Your task to perform on an android device: Clear the shopping cart on target.com. Add logitech g pro to the cart on target.com, then select checkout. Image 0: 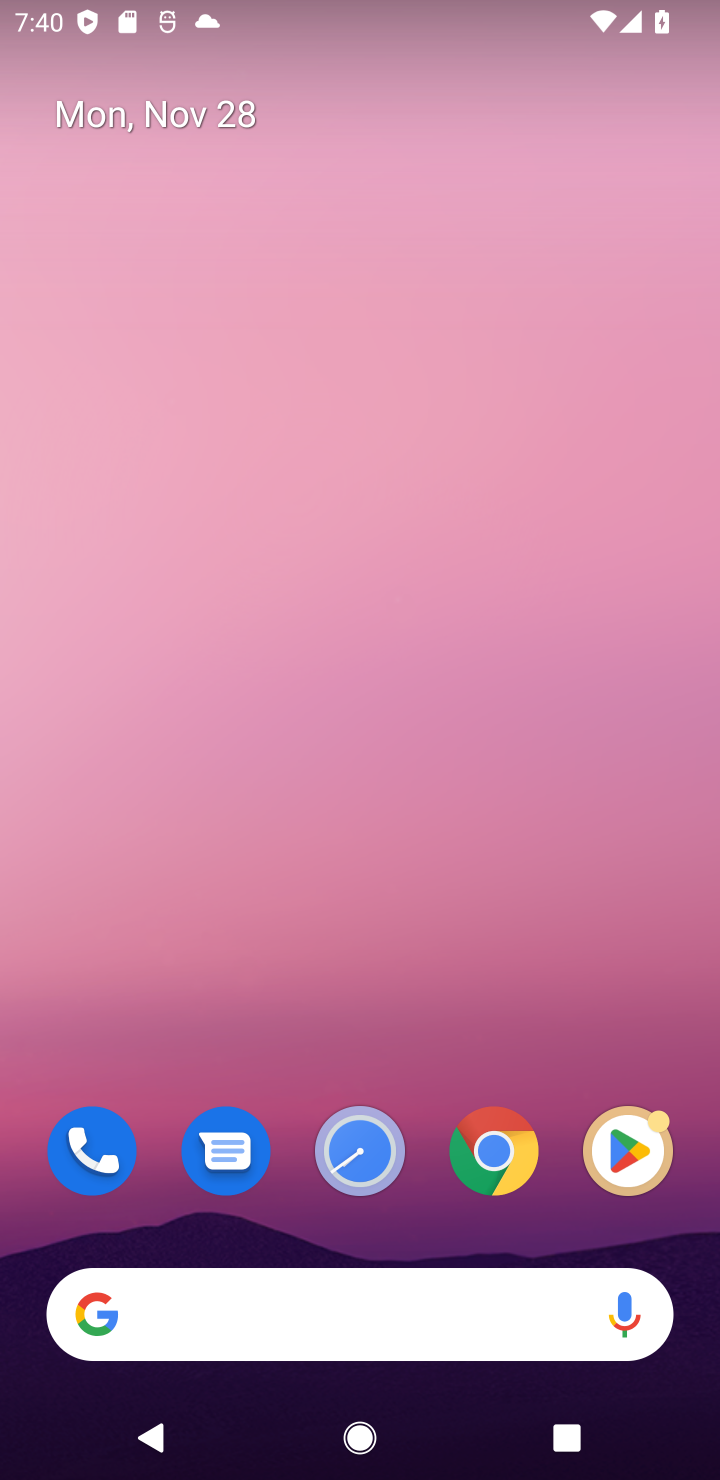
Step 0: click (477, 1284)
Your task to perform on an android device: Clear the shopping cart on target.com. Add logitech g pro to the cart on target.com, then select checkout. Image 1: 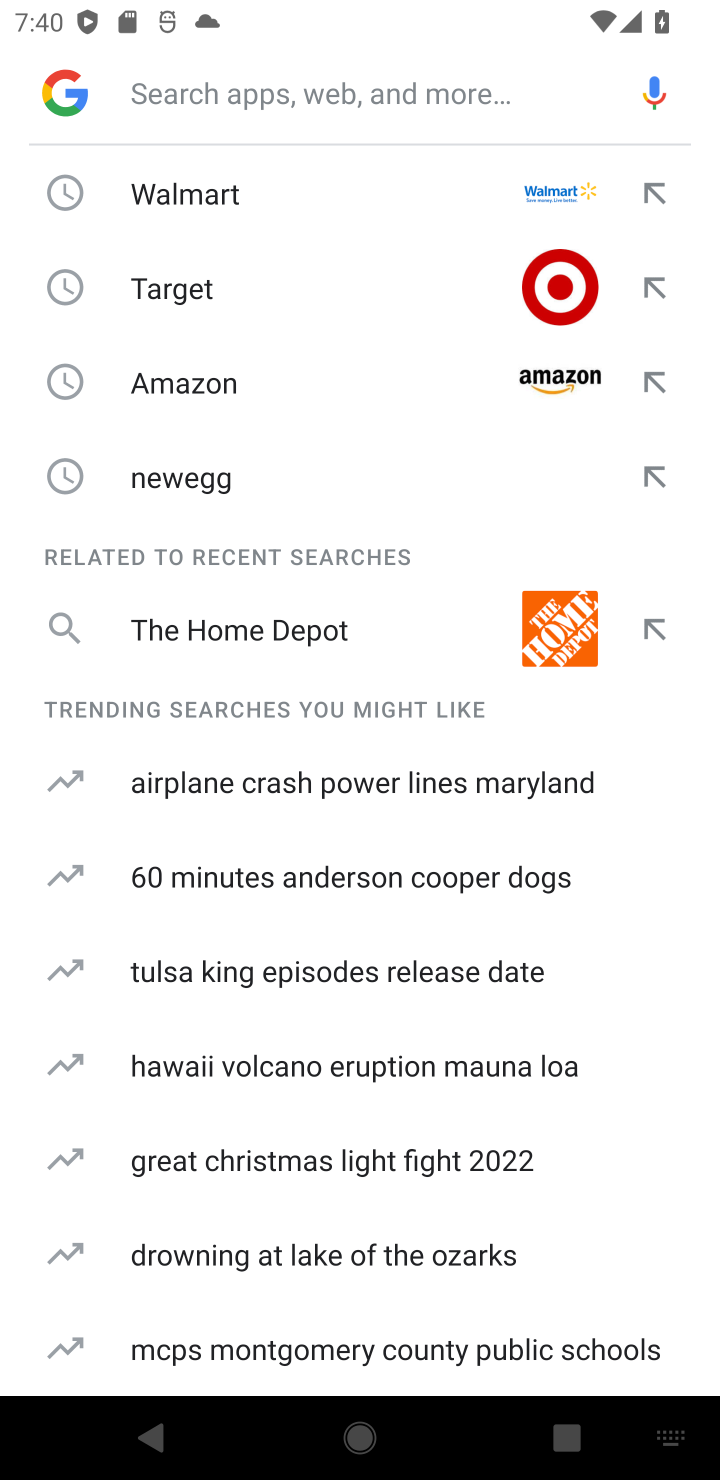
Step 1: type "target"
Your task to perform on an android device: Clear the shopping cart on target.com. Add logitech g pro to the cart on target.com, then select checkout. Image 2: 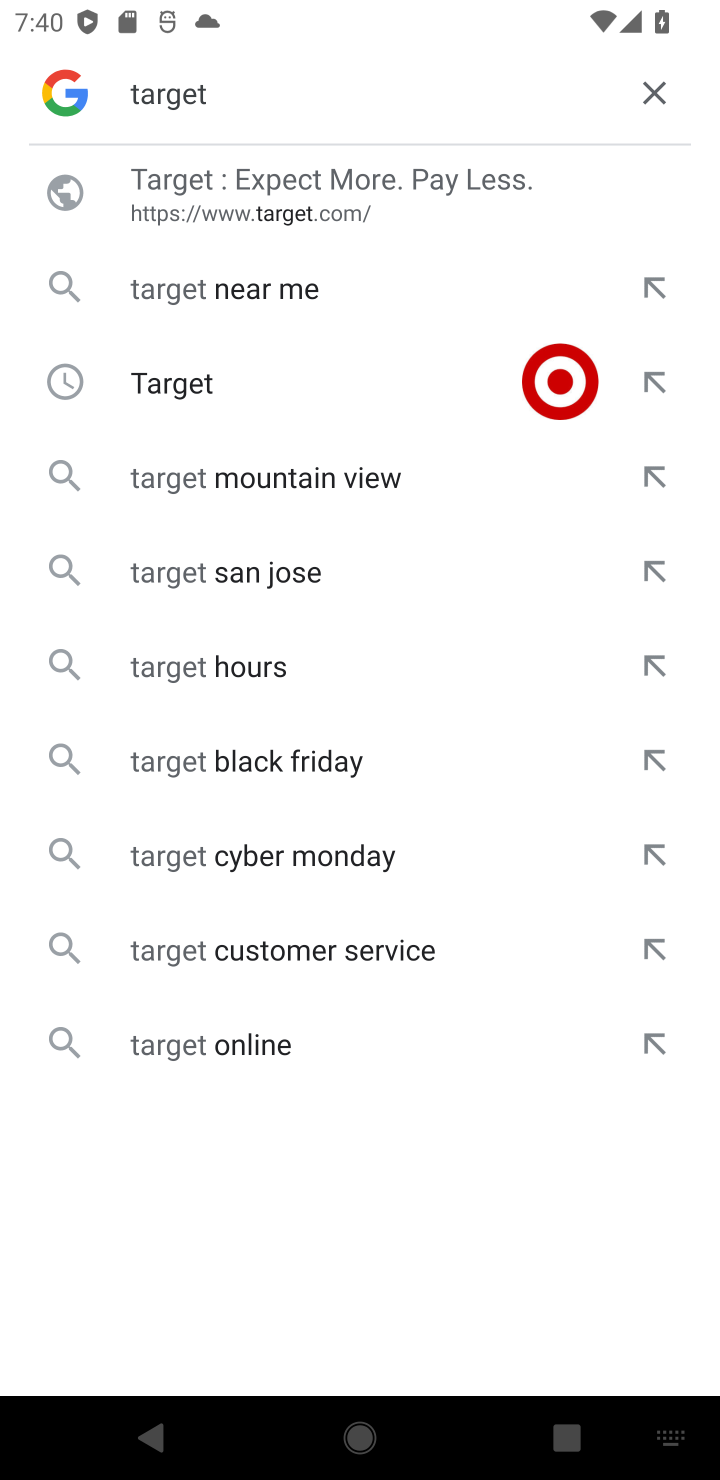
Step 2: click (257, 384)
Your task to perform on an android device: Clear the shopping cart on target.com. Add logitech g pro to the cart on target.com, then select checkout. Image 3: 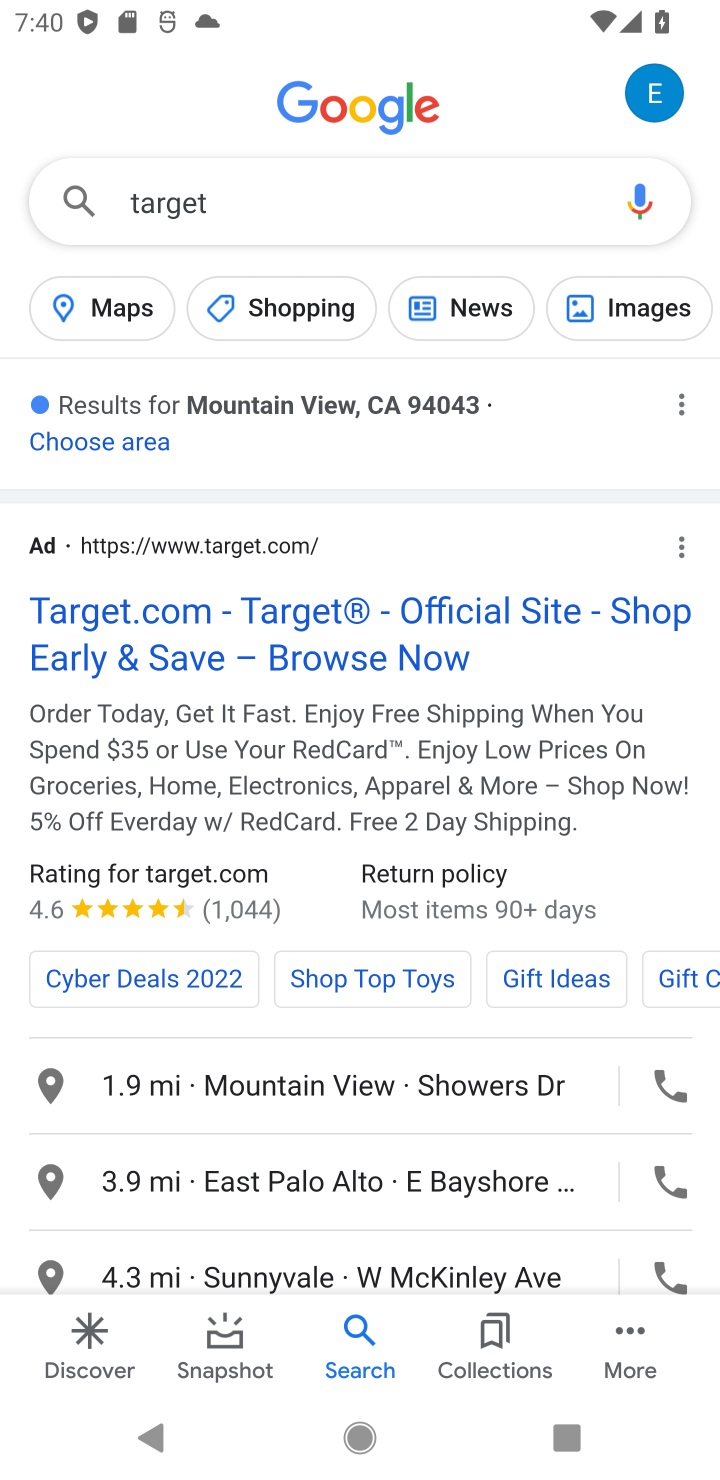
Step 3: click (191, 638)
Your task to perform on an android device: Clear the shopping cart on target.com. Add logitech g pro to the cart on target.com, then select checkout. Image 4: 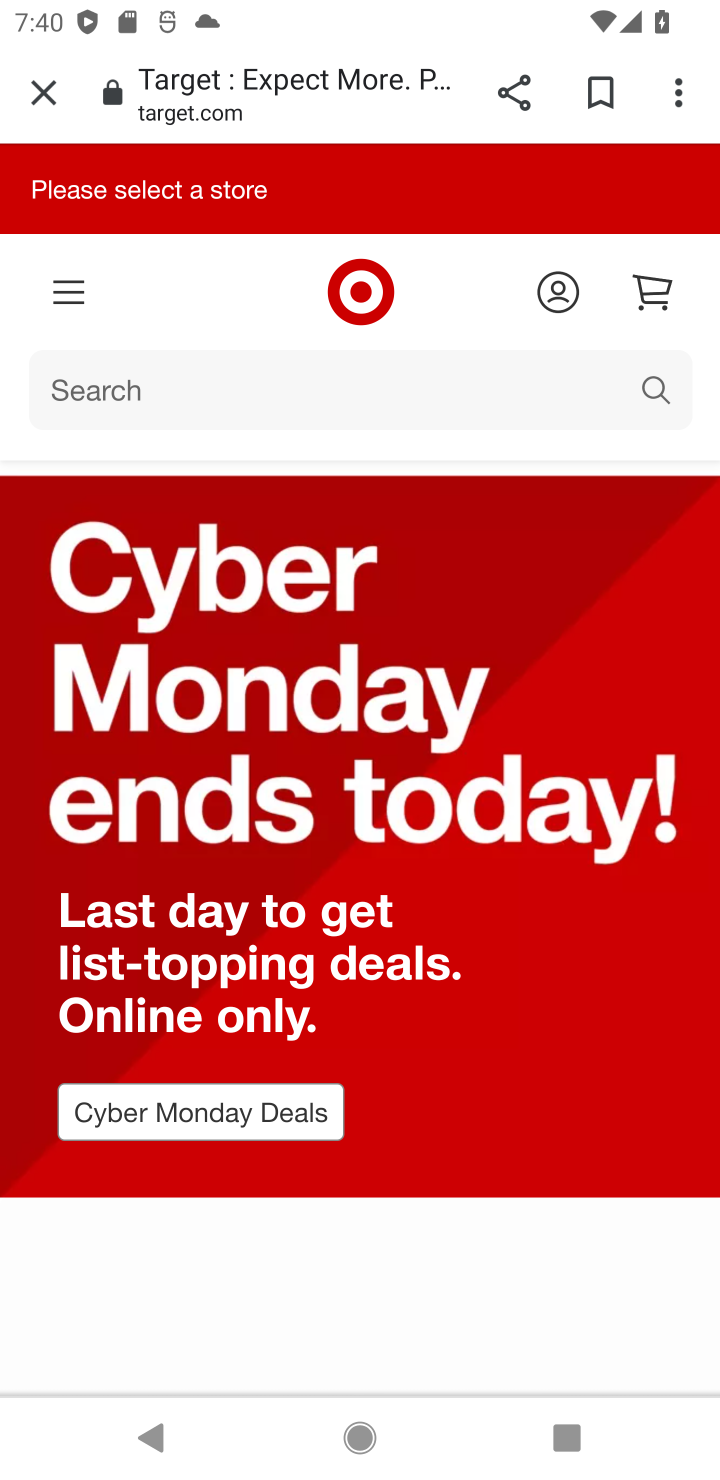
Step 4: click (138, 402)
Your task to perform on an android device: Clear the shopping cart on target.com. Add logitech g pro to the cart on target.com, then select checkout. Image 5: 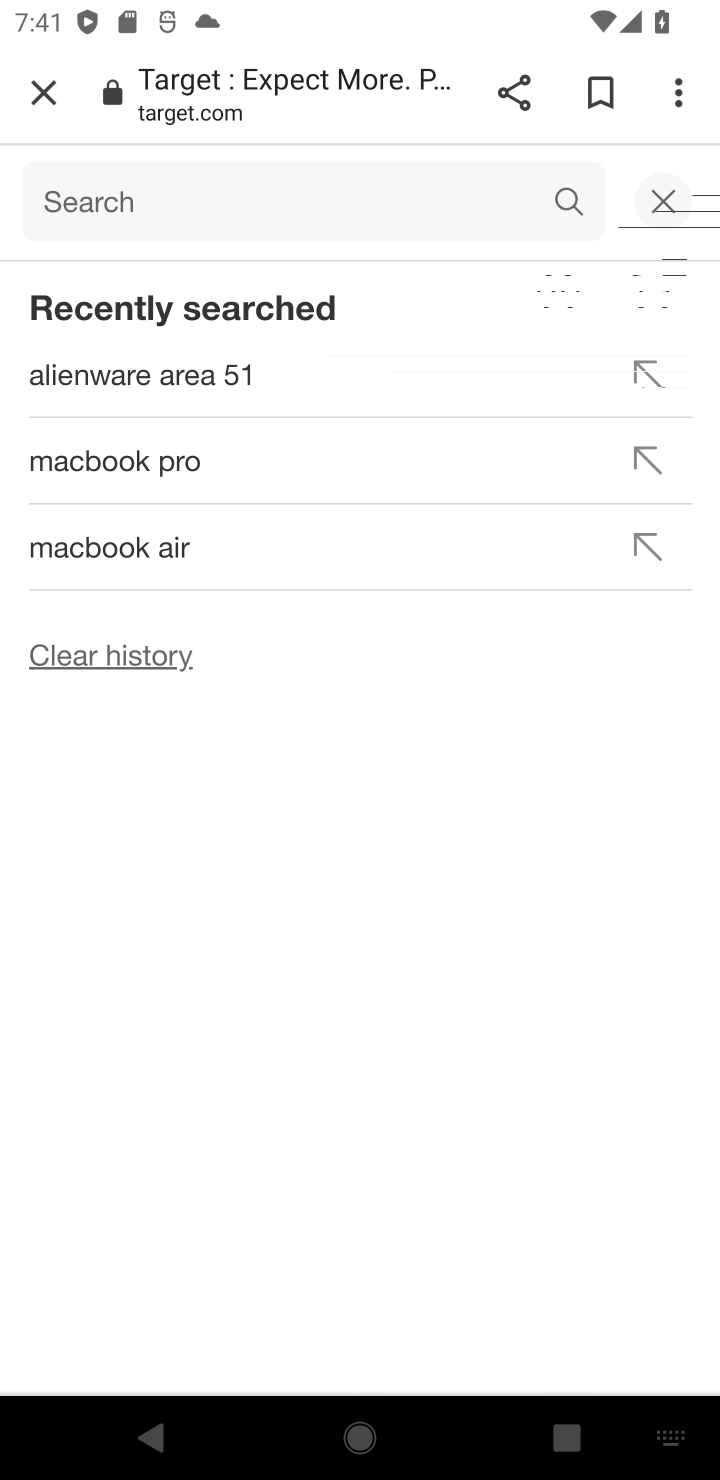
Step 5: type "logitech g pro"
Your task to perform on an android device: Clear the shopping cart on target.com. Add logitech g pro to the cart on target.com, then select checkout. Image 6: 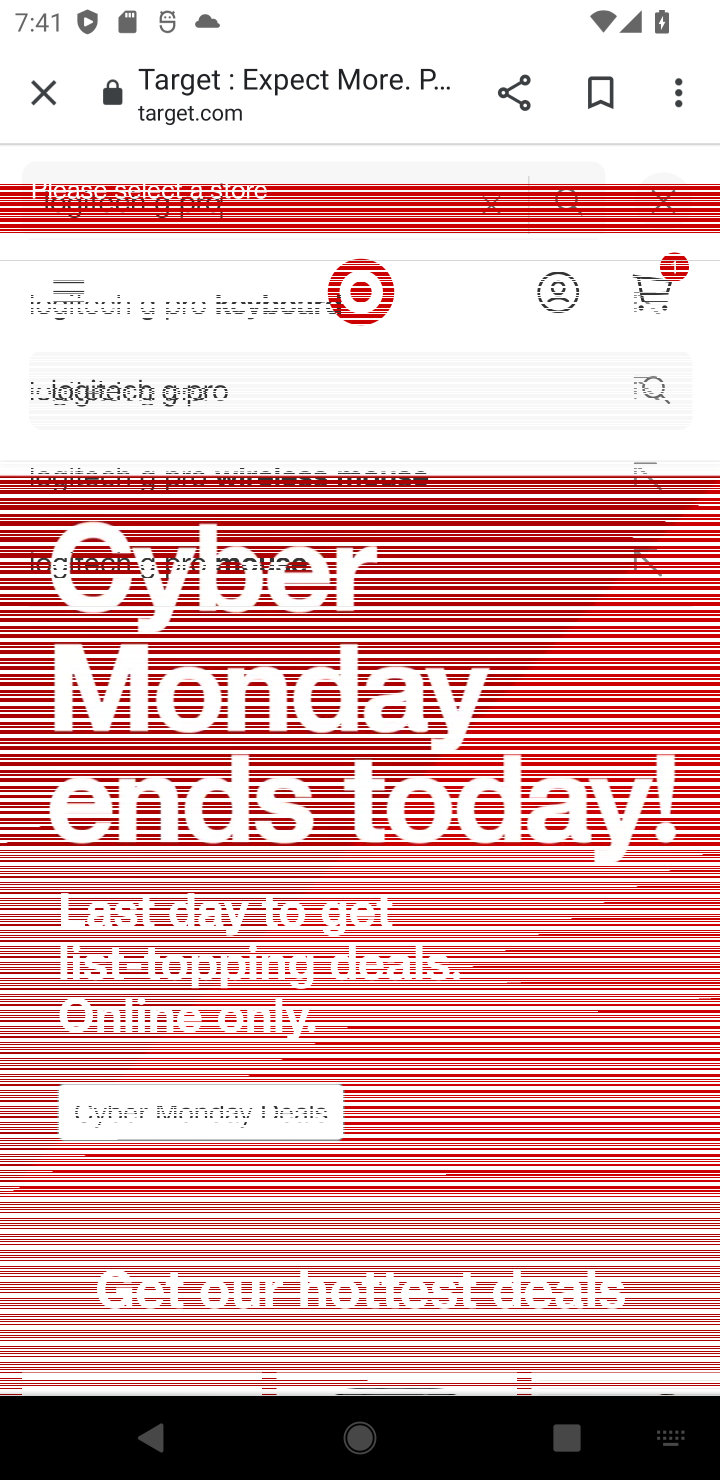
Step 6: click (571, 231)
Your task to perform on an android device: Clear the shopping cart on target.com. Add logitech g pro to the cart on target.com, then select checkout. Image 7: 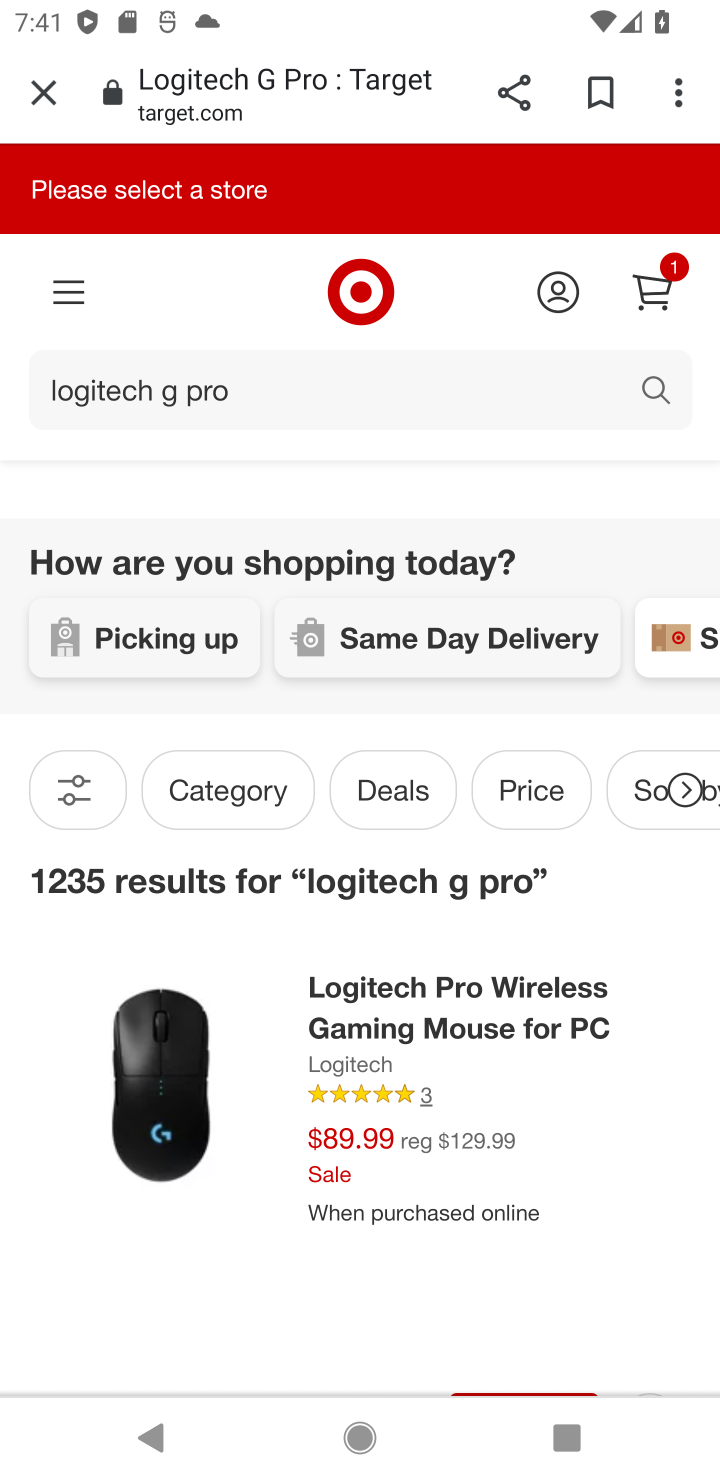
Step 7: click (457, 1071)
Your task to perform on an android device: Clear the shopping cart on target.com. Add logitech g pro to the cart on target.com, then select checkout. Image 8: 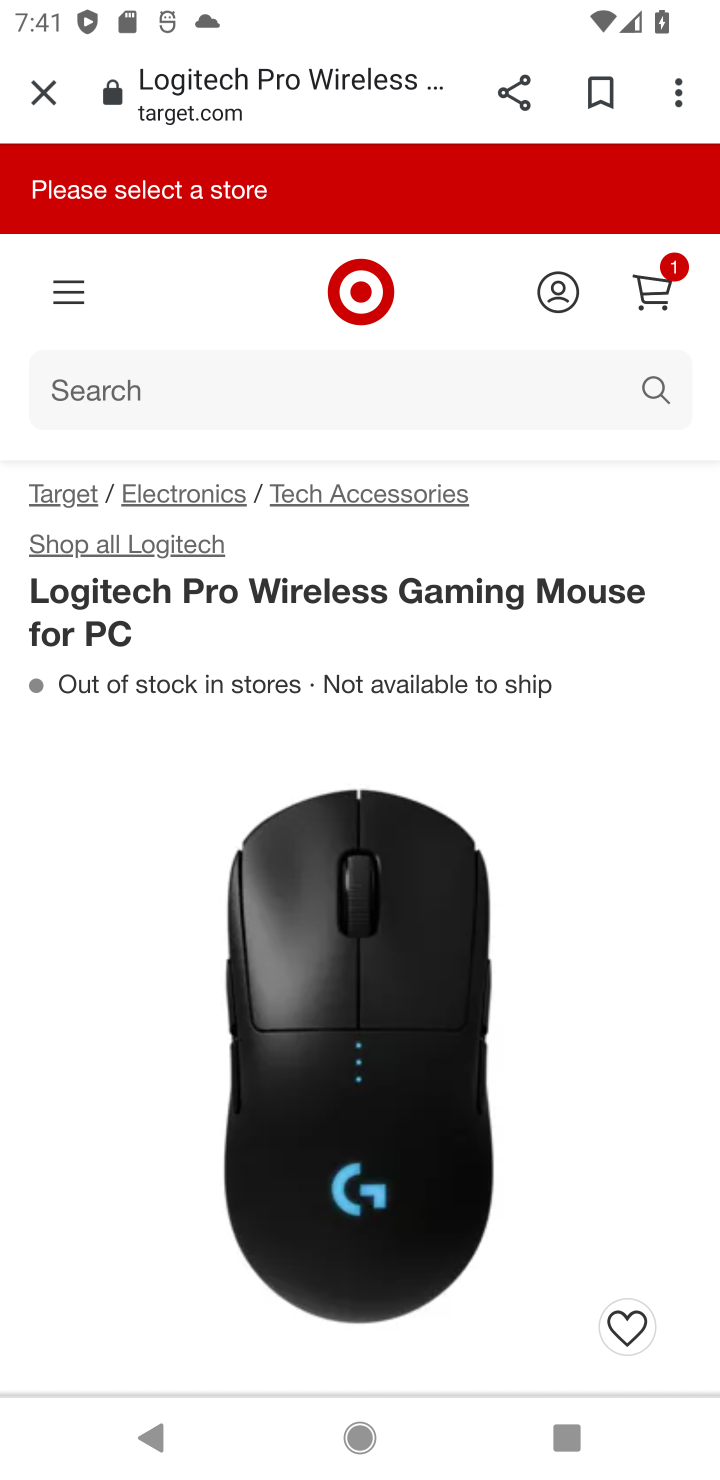
Step 8: drag from (123, 1304) to (387, 570)
Your task to perform on an android device: Clear the shopping cart on target.com. Add logitech g pro to the cart on target.com, then select checkout. Image 9: 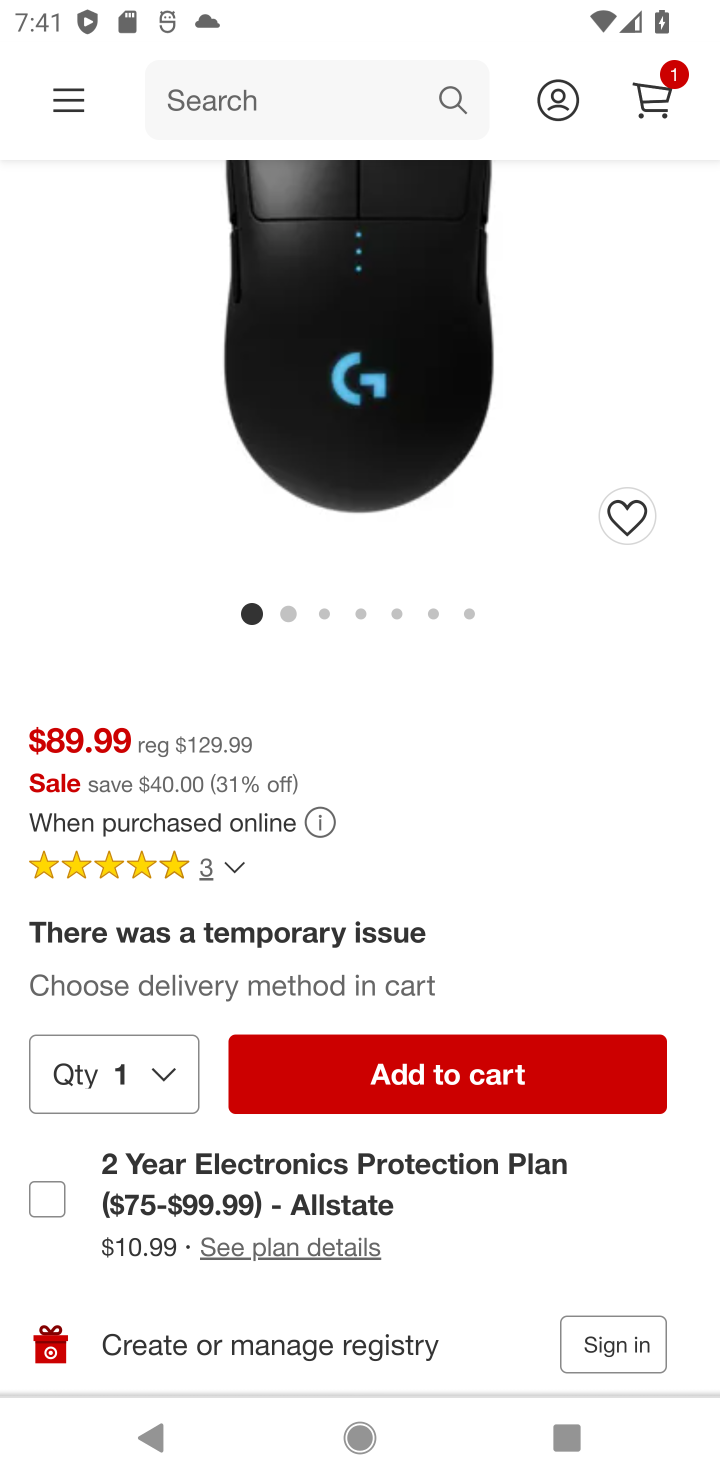
Step 9: click (432, 1097)
Your task to perform on an android device: Clear the shopping cart on target.com. Add logitech g pro to the cart on target.com, then select checkout. Image 10: 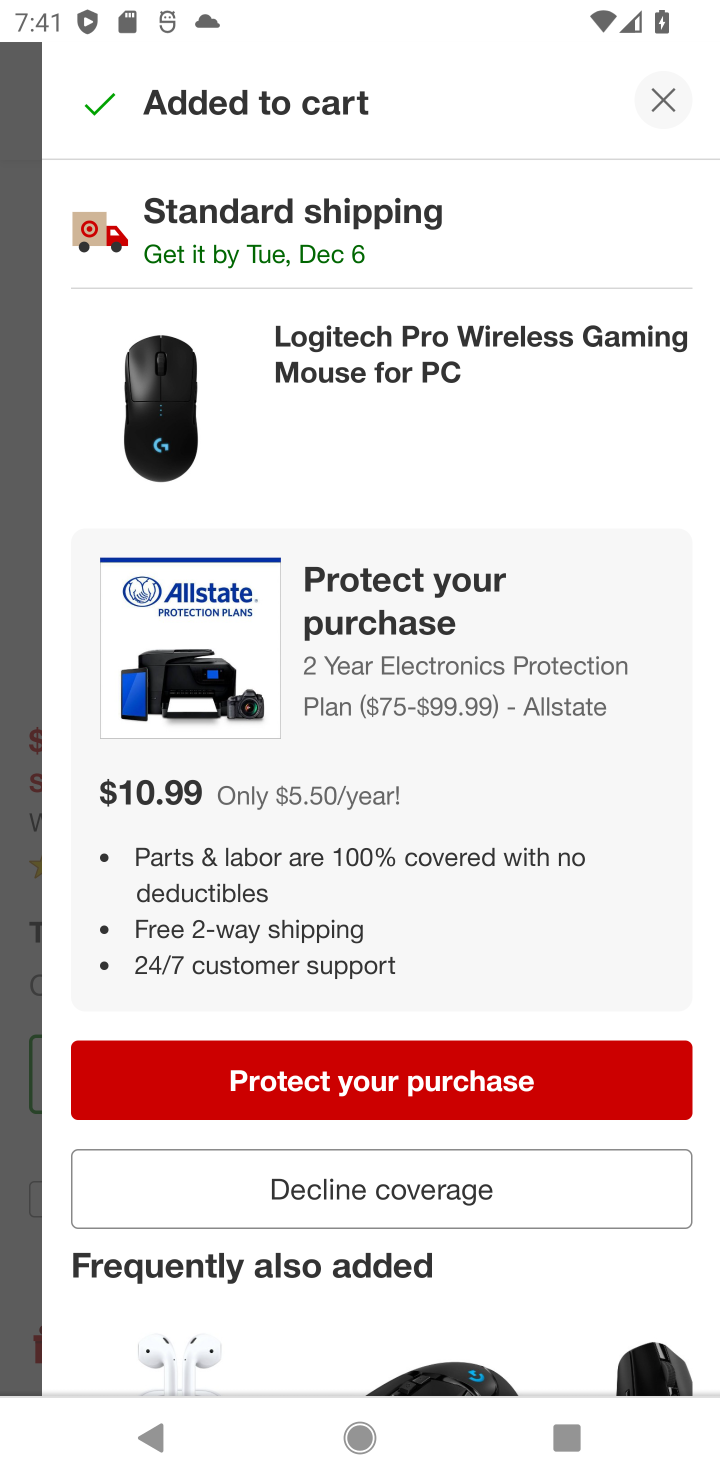
Step 10: task complete